Your task to perform on an android device: Open the Play Movies app and select the watchlist tab. Image 0: 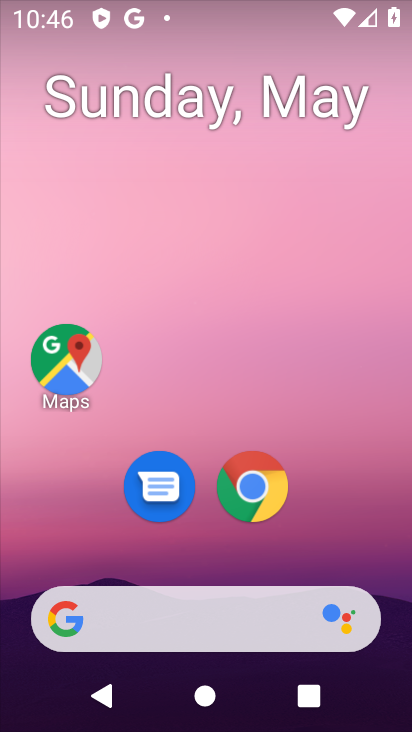
Step 0: drag from (296, 571) to (378, 132)
Your task to perform on an android device: Open the Play Movies app and select the watchlist tab. Image 1: 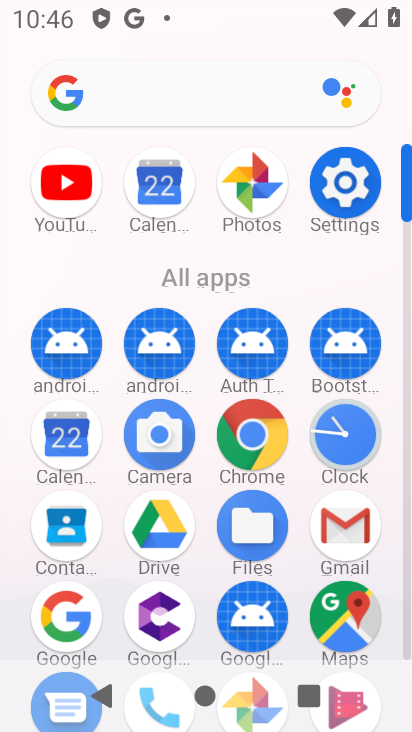
Step 1: drag from (296, 655) to (328, 257)
Your task to perform on an android device: Open the Play Movies app and select the watchlist tab. Image 2: 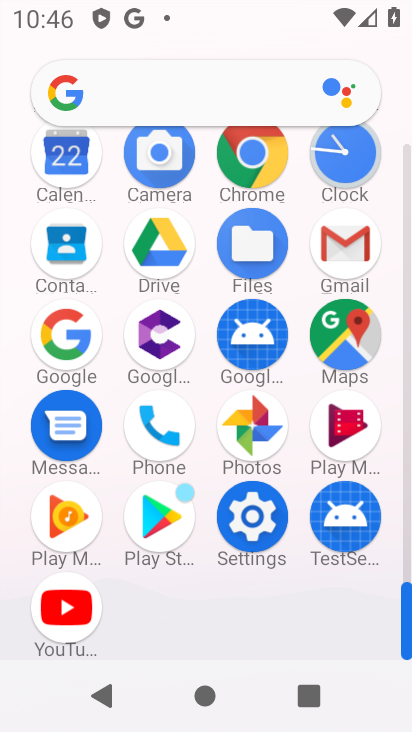
Step 2: click (344, 621)
Your task to perform on an android device: Open the Play Movies app and select the watchlist tab. Image 3: 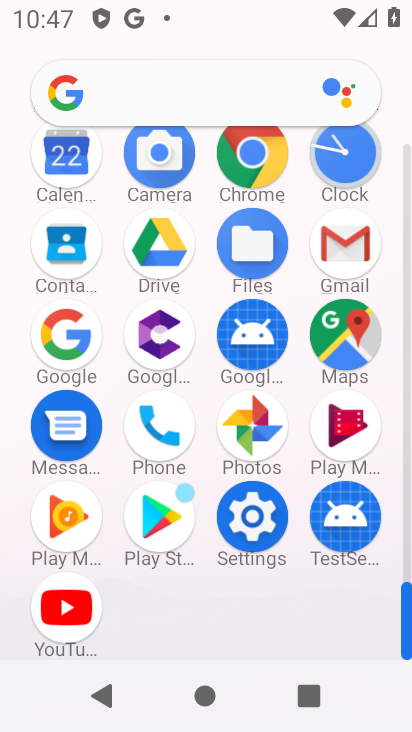
Step 3: click (362, 422)
Your task to perform on an android device: Open the Play Movies app and select the watchlist tab. Image 4: 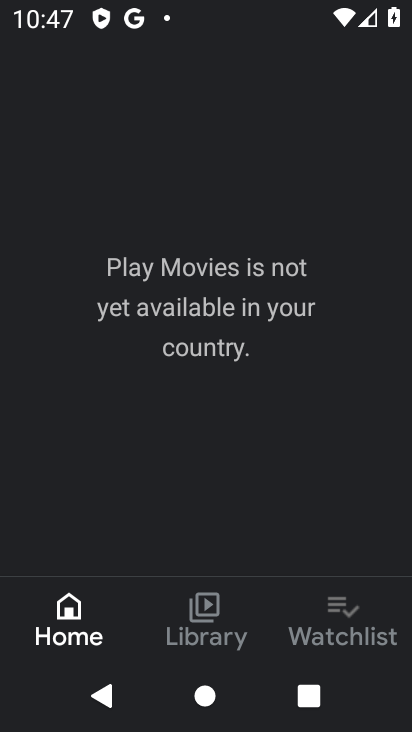
Step 4: click (342, 628)
Your task to perform on an android device: Open the Play Movies app and select the watchlist tab. Image 5: 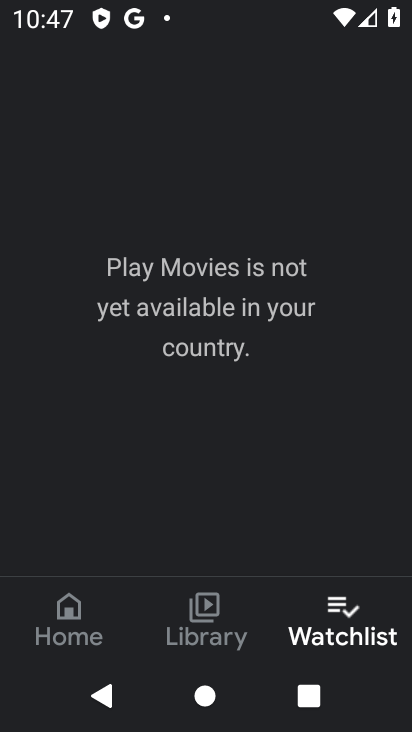
Step 5: task complete